Your task to perform on an android device: open wifi settings Image 0: 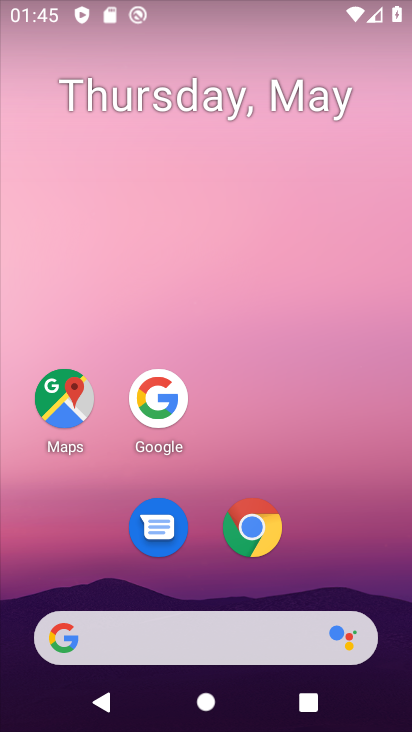
Step 0: click (361, 2)
Your task to perform on an android device: open wifi settings Image 1: 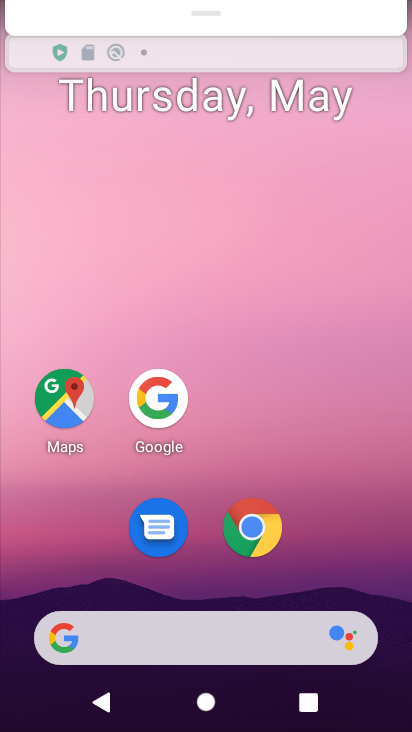
Step 1: drag from (227, 528) to (266, 70)
Your task to perform on an android device: open wifi settings Image 2: 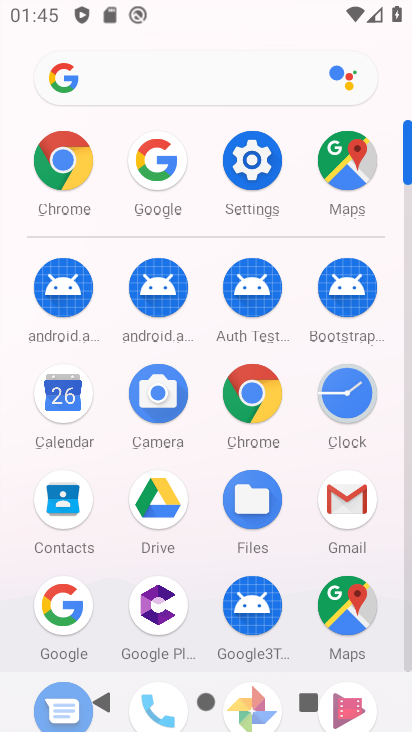
Step 2: click (249, 161)
Your task to perform on an android device: open wifi settings Image 3: 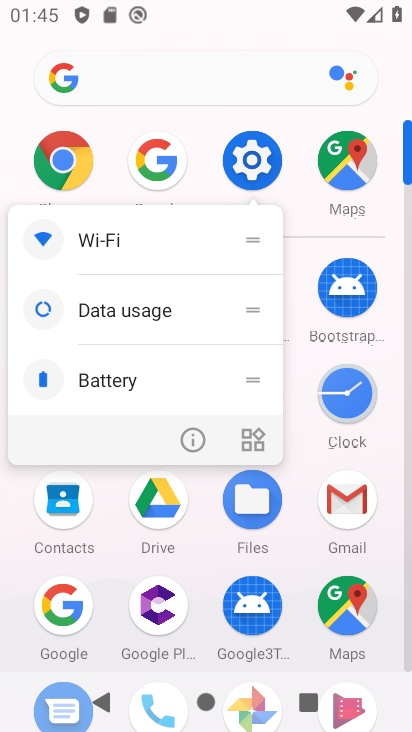
Step 3: click (180, 429)
Your task to perform on an android device: open wifi settings Image 4: 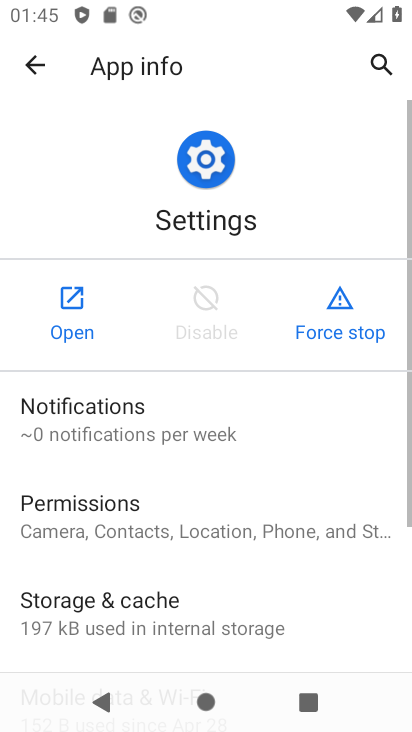
Step 4: click (74, 313)
Your task to perform on an android device: open wifi settings Image 5: 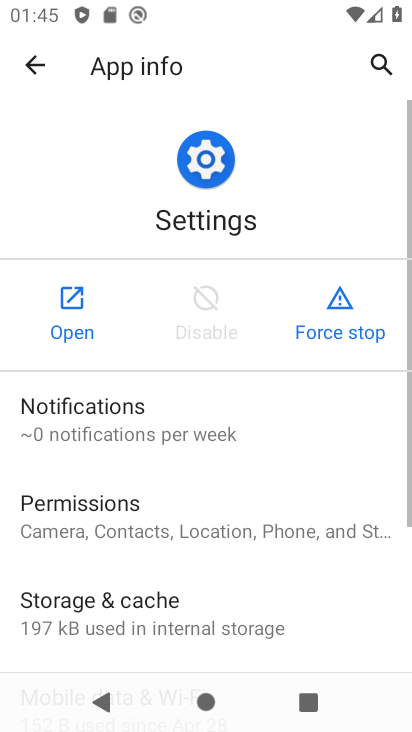
Step 5: click (74, 313)
Your task to perform on an android device: open wifi settings Image 6: 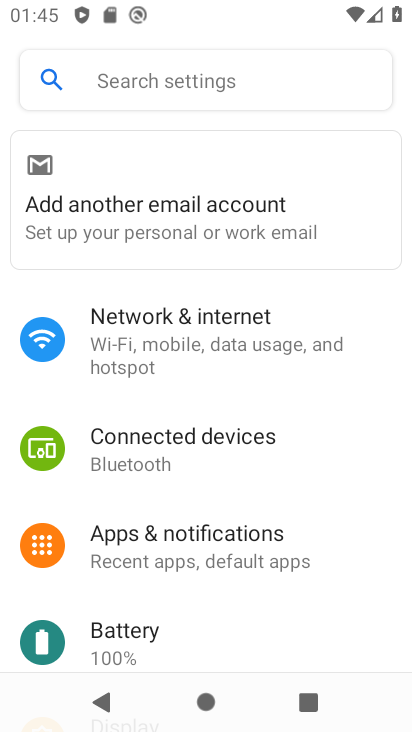
Step 6: drag from (233, 607) to (276, 115)
Your task to perform on an android device: open wifi settings Image 7: 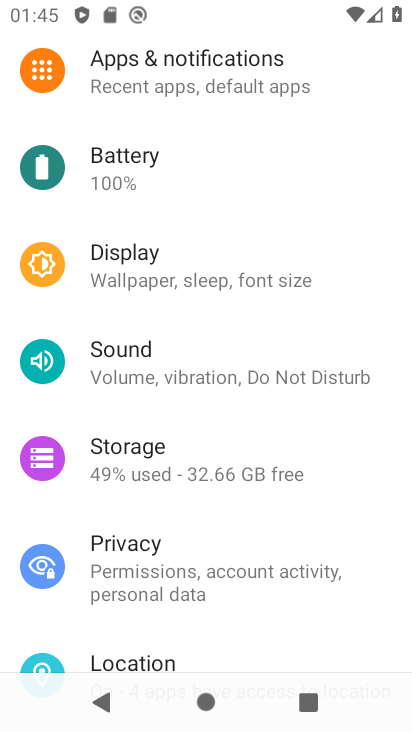
Step 7: drag from (229, 576) to (280, 106)
Your task to perform on an android device: open wifi settings Image 8: 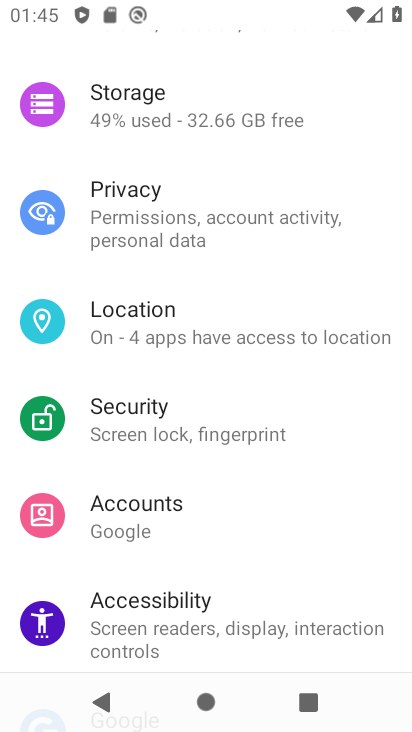
Step 8: drag from (199, 644) to (249, 146)
Your task to perform on an android device: open wifi settings Image 9: 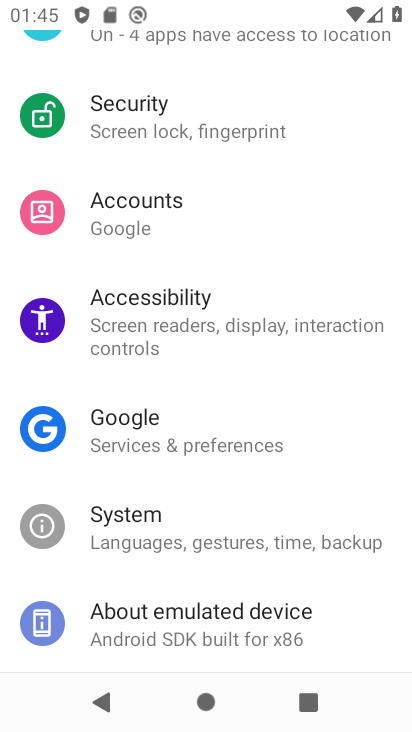
Step 9: drag from (272, 45) to (375, 708)
Your task to perform on an android device: open wifi settings Image 10: 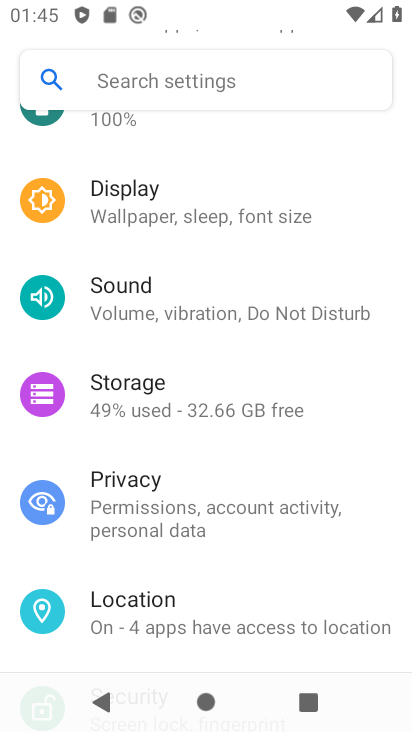
Step 10: drag from (194, 195) to (263, 726)
Your task to perform on an android device: open wifi settings Image 11: 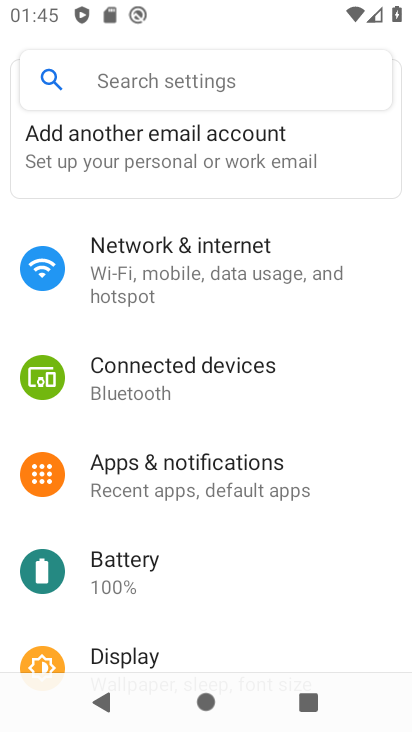
Step 11: click (166, 255)
Your task to perform on an android device: open wifi settings Image 12: 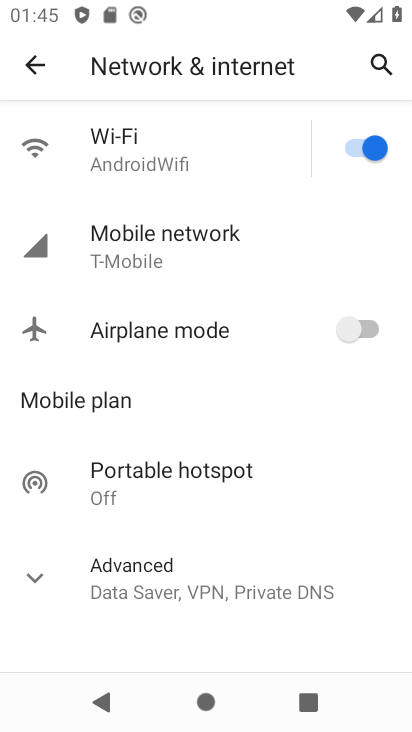
Step 12: click (176, 166)
Your task to perform on an android device: open wifi settings Image 13: 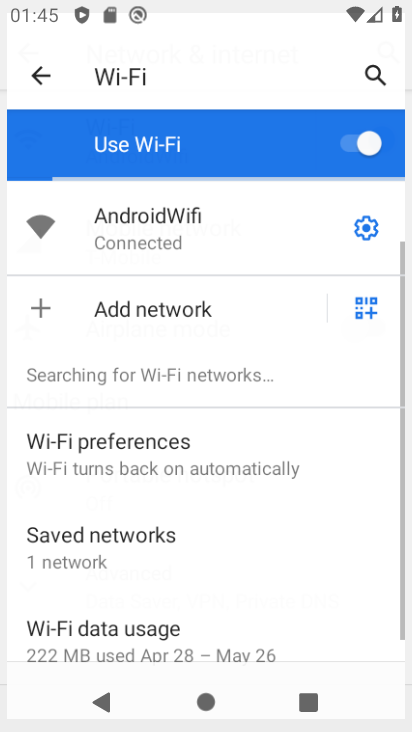
Step 13: task complete